Your task to perform on an android device: turn notification dots off Image 0: 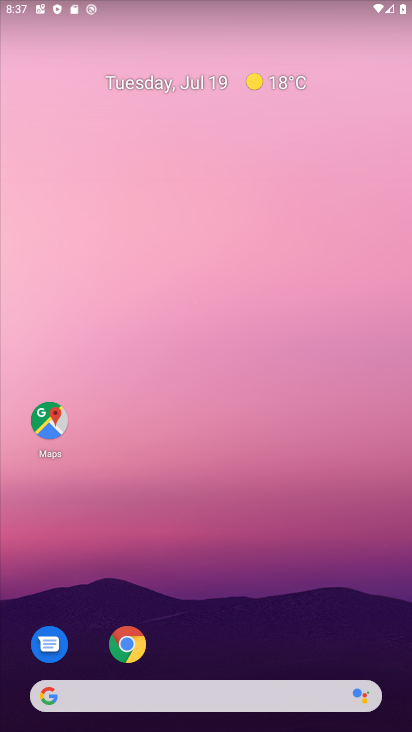
Step 0: drag from (236, 728) to (201, 243)
Your task to perform on an android device: turn notification dots off Image 1: 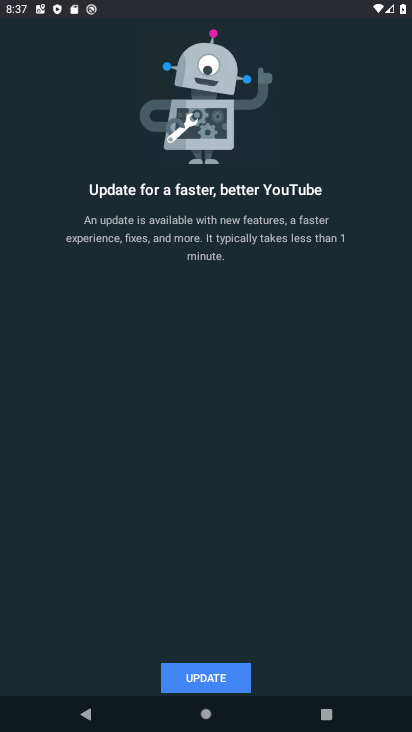
Step 1: press home button
Your task to perform on an android device: turn notification dots off Image 2: 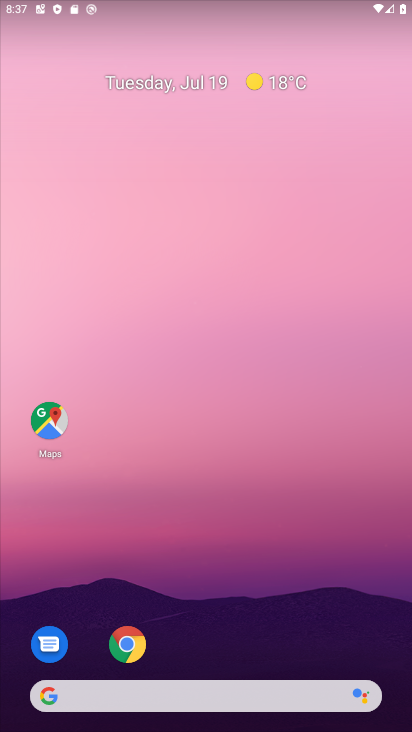
Step 2: drag from (203, 721) to (191, 209)
Your task to perform on an android device: turn notification dots off Image 3: 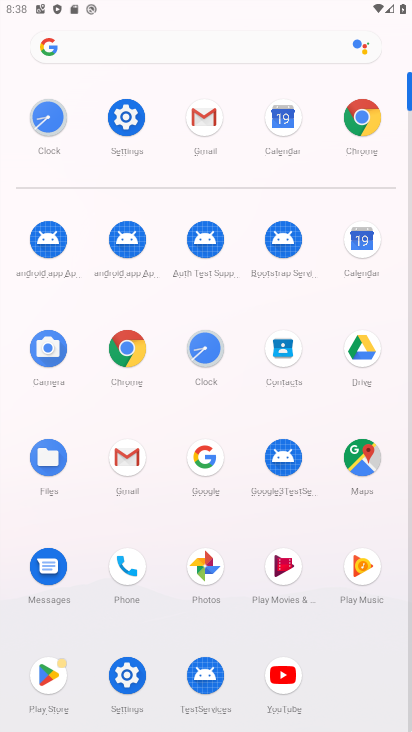
Step 3: click (130, 119)
Your task to perform on an android device: turn notification dots off Image 4: 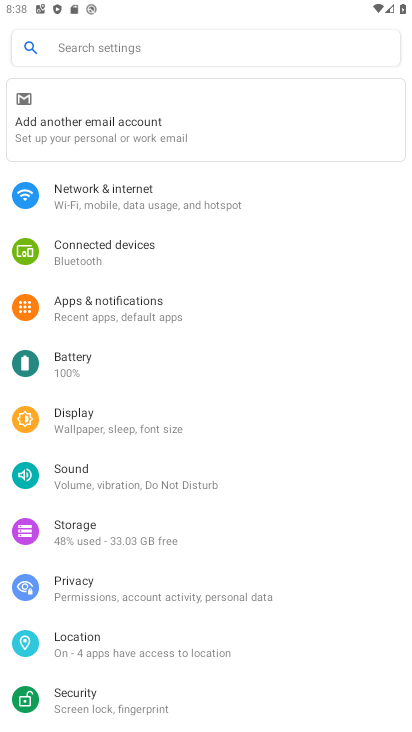
Step 4: click (105, 304)
Your task to perform on an android device: turn notification dots off Image 5: 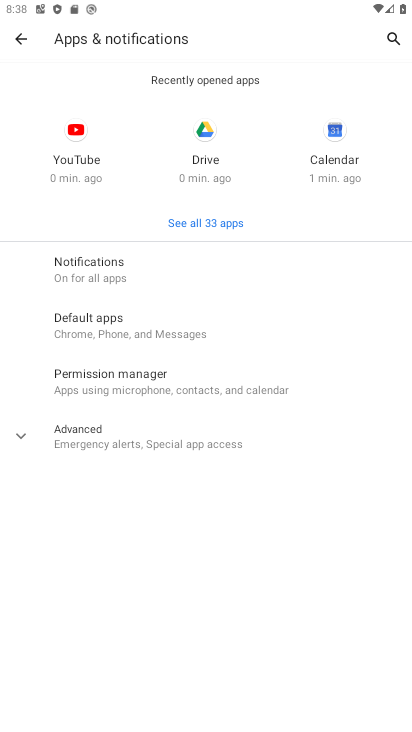
Step 5: click (88, 275)
Your task to perform on an android device: turn notification dots off Image 6: 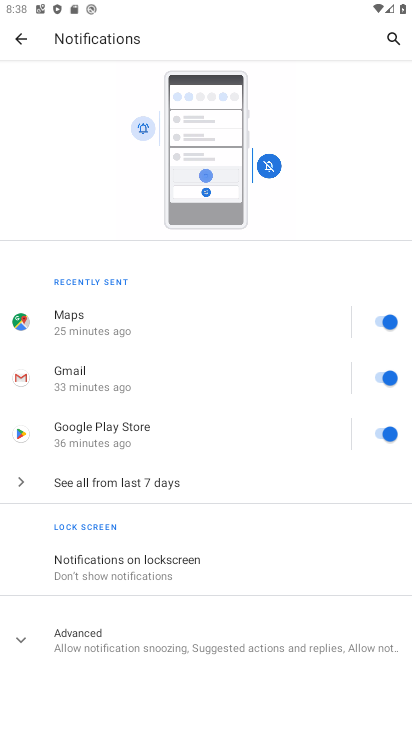
Step 6: click (61, 637)
Your task to perform on an android device: turn notification dots off Image 7: 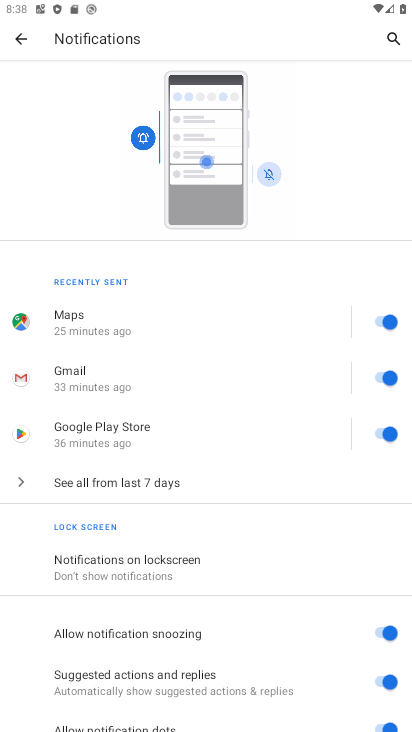
Step 7: drag from (200, 658) to (191, 445)
Your task to perform on an android device: turn notification dots off Image 8: 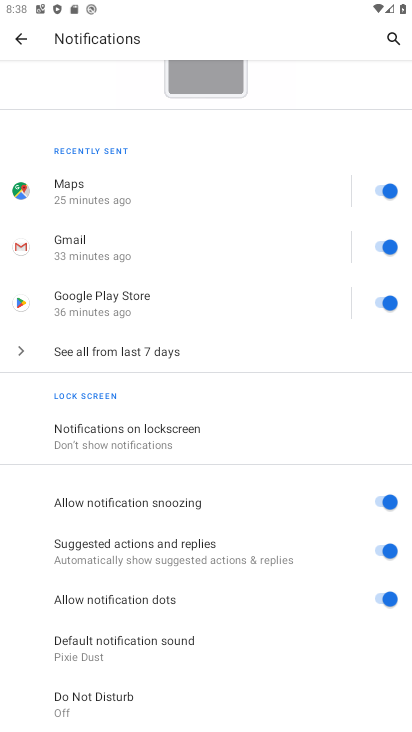
Step 8: click (381, 600)
Your task to perform on an android device: turn notification dots off Image 9: 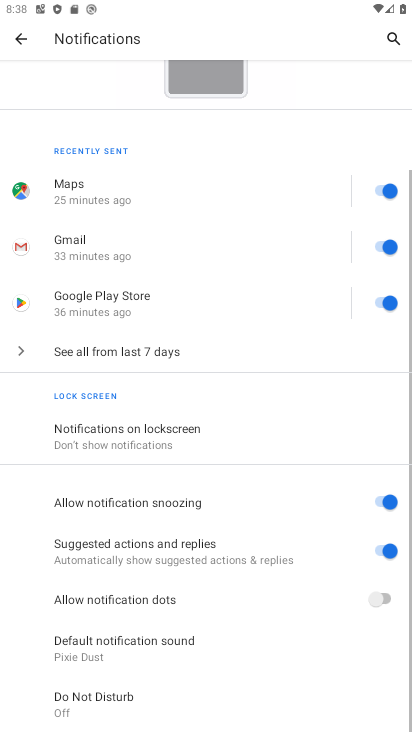
Step 9: task complete